Your task to perform on an android device: turn on sleep mode Image 0: 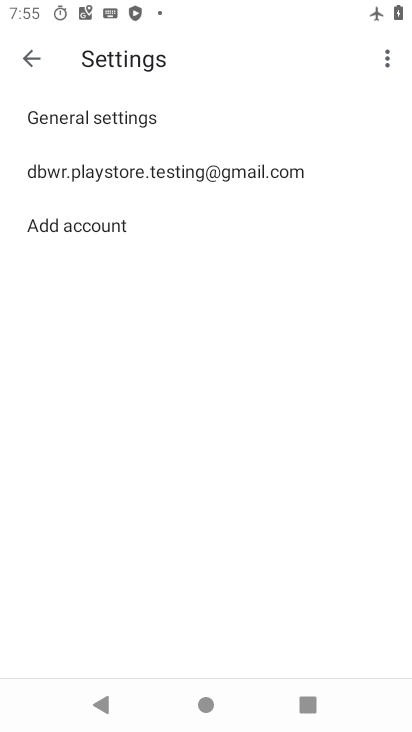
Step 0: press home button
Your task to perform on an android device: turn on sleep mode Image 1: 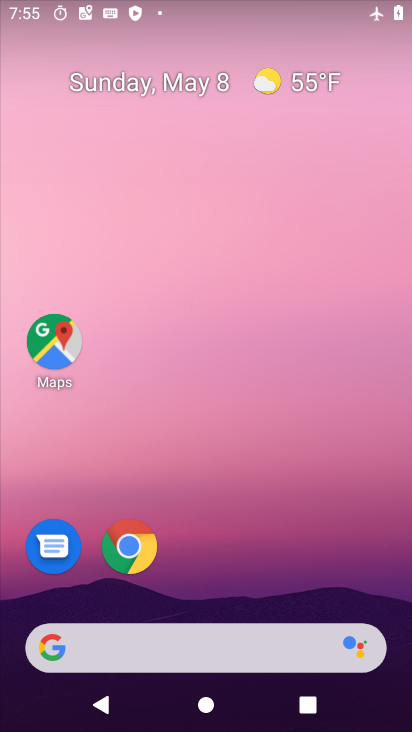
Step 1: drag from (218, 462) to (248, 109)
Your task to perform on an android device: turn on sleep mode Image 2: 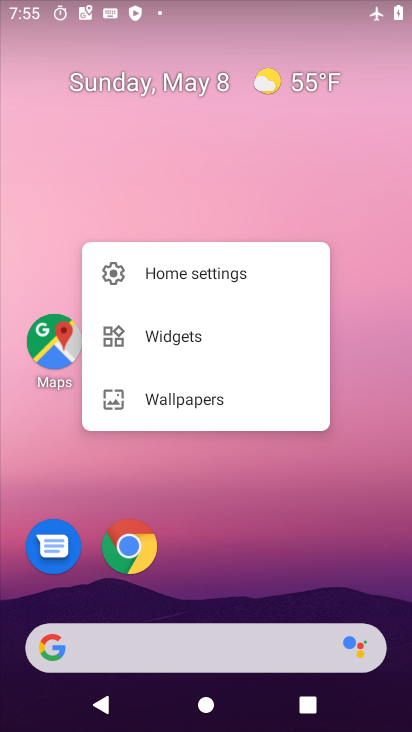
Step 2: click (238, 493)
Your task to perform on an android device: turn on sleep mode Image 3: 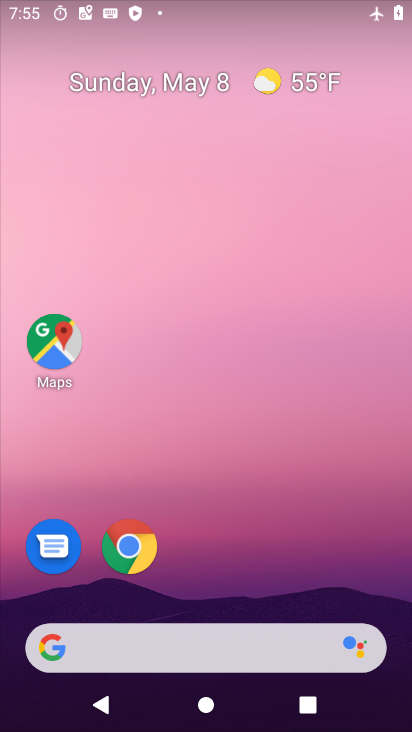
Step 3: drag from (238, 529) to (284, 0)
Your task to perform on an android device: turn on sleep mode Image 4: 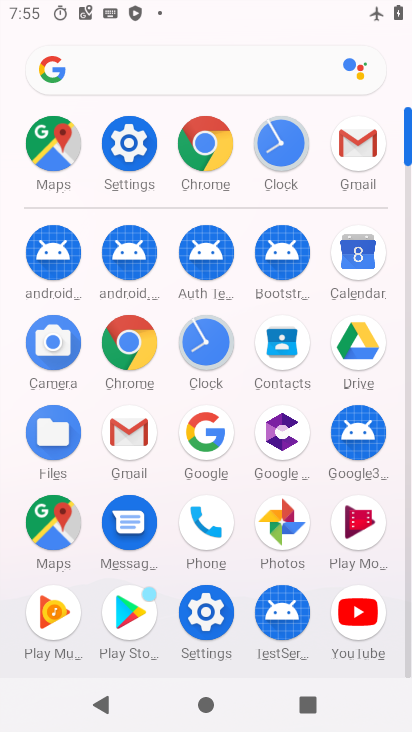
Step 4: click (131, 143)
Your task to perform on an android device: turn on sleep mode Image 5: 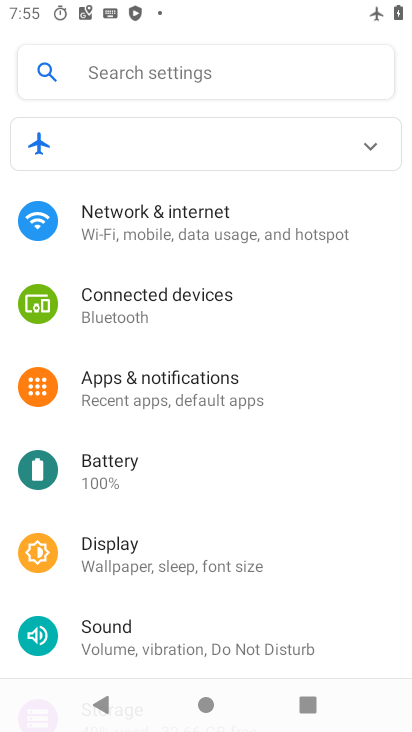
Step 5: click (154, 208)
Your task to perform on an android device: turn on sleep mode Image 6: 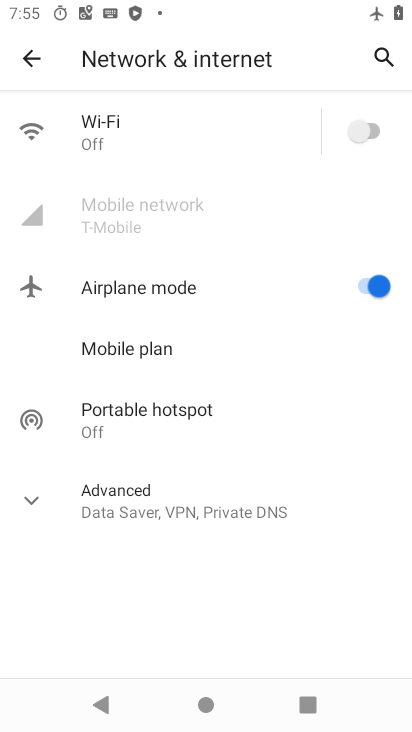
Step 6: click (364, 281)
Your task to perform on an android device: turn on sleep mode Image 7: 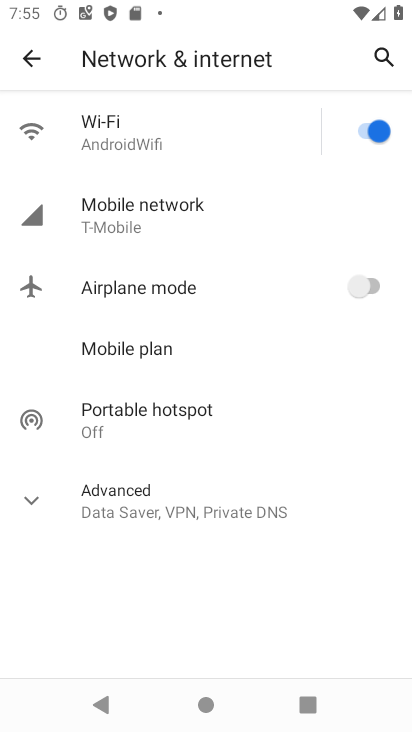
Step 7: click (33, 50)
Your task to perform on an android device: turn on sleep mode Image 8: 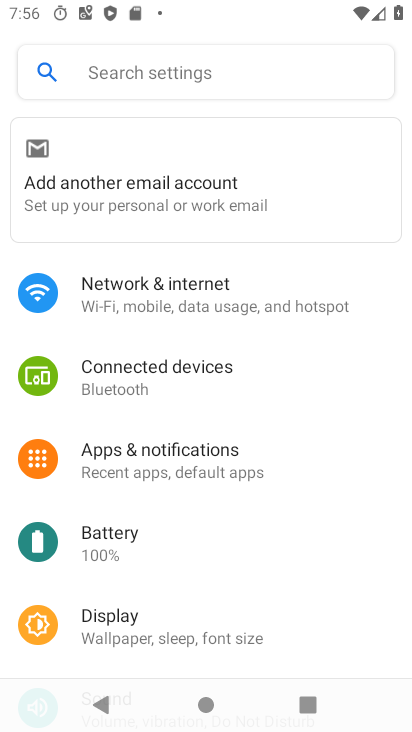
Step 8: click (177, 627)
Your task to perform on an android device: turn on sleep mode Image 9: 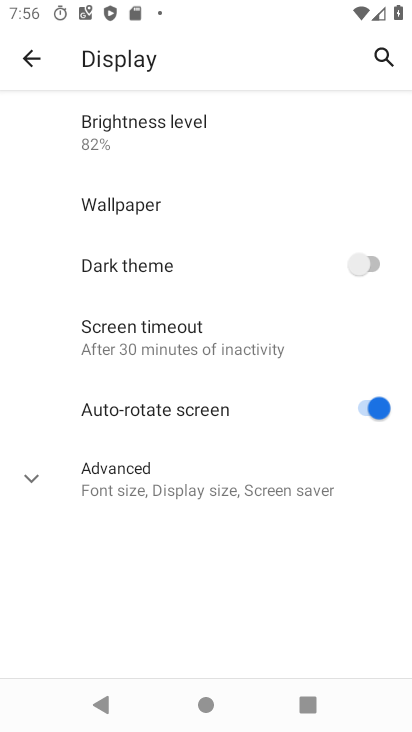
Step 9: click (28, 480)
Your task to perform on an android device: turn on sleep mode Image 10: 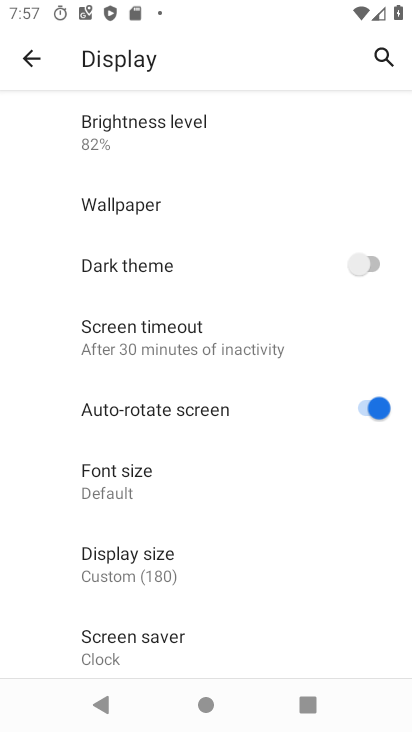
Step 10: task complete